Your task to perform on an android device: turn off notifications settings in the gmail app Image 0: 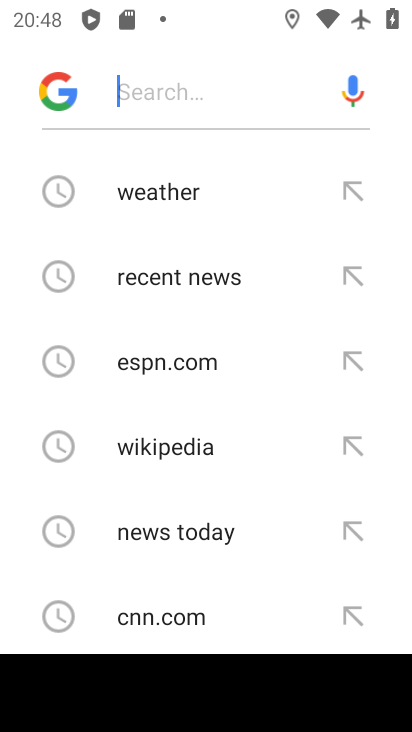
Step 0: press home button
Your task to perform on an android device: turn off notifications settings in the gmail app Image 1: 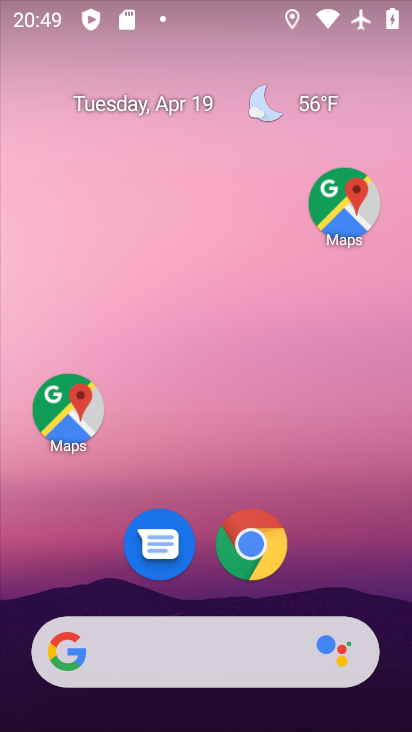
Step 1: drag from (183, 652) to (310, 148)
Your task to perform on an android device: turn off notifications settings in the gmail app Image 2: 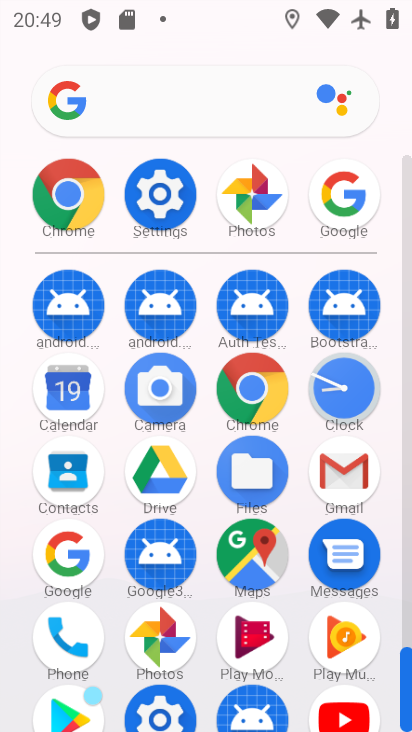
Step 2: click (352, 468)
Your task to perform on an android device: turn off notifications settings in the gmail app Image 3: 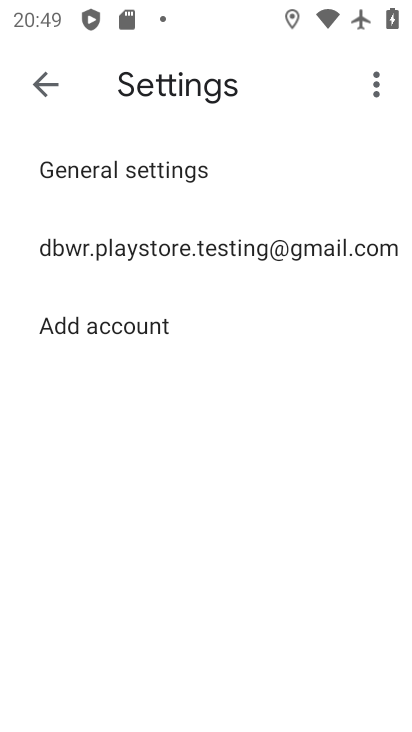
Step 3: click (260, 250)
Your task to perform on an android device: turn off notifications settings in the gmail app Image 4: 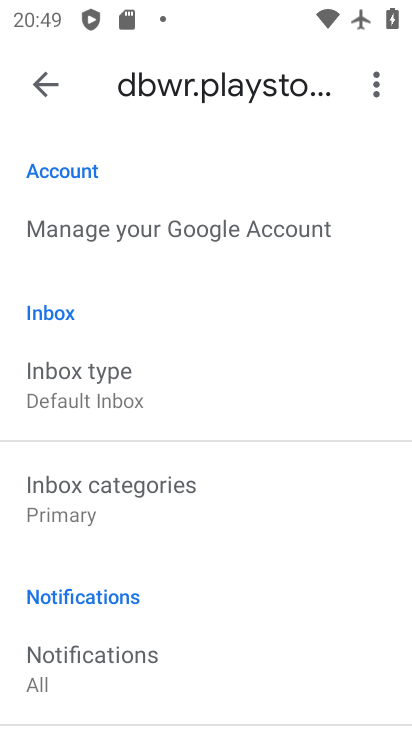
Step 4: click (126, 660)
Your task to perform on an android device: turn off notifications settings in the gmail app Image 5: 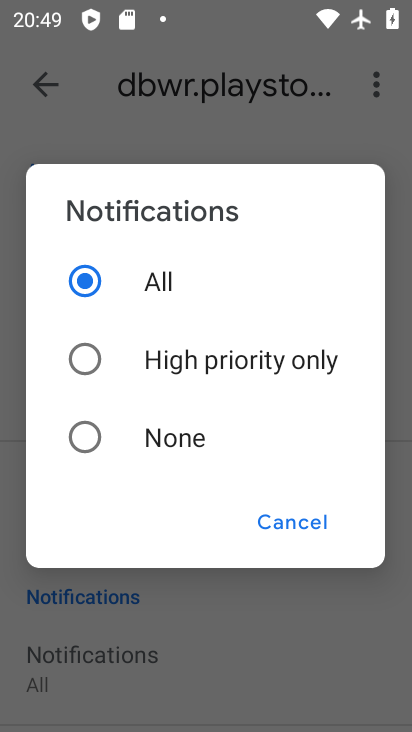
Step 5: click (87, 438)
Your task to perform on an android device: turn off notifications settings in the gmail app Image 6: 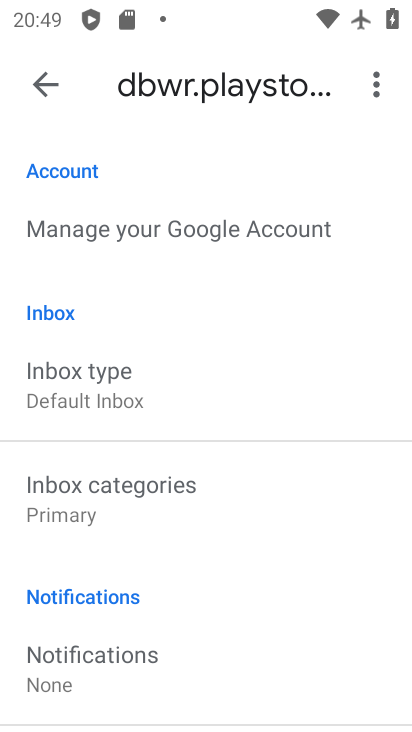
Step 6: task complete